Your task to perform on an android device: toggle notifications settings in the gmail app Image 0: 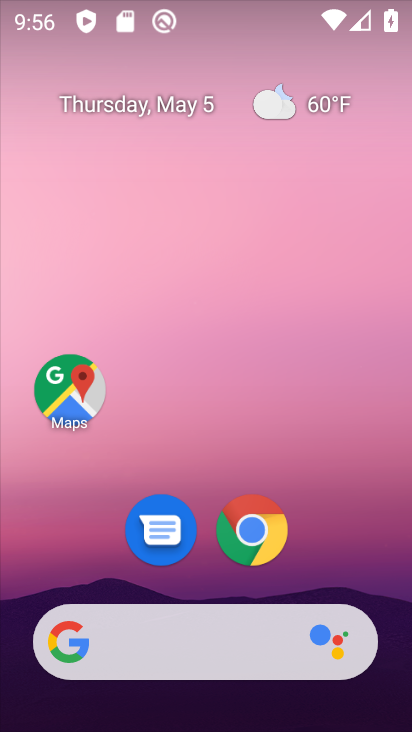
Step 0: drag from (380, 578) to (197, 0)
Your task to perform on an android device: toggle notifications settings in the gmail app Image 1: 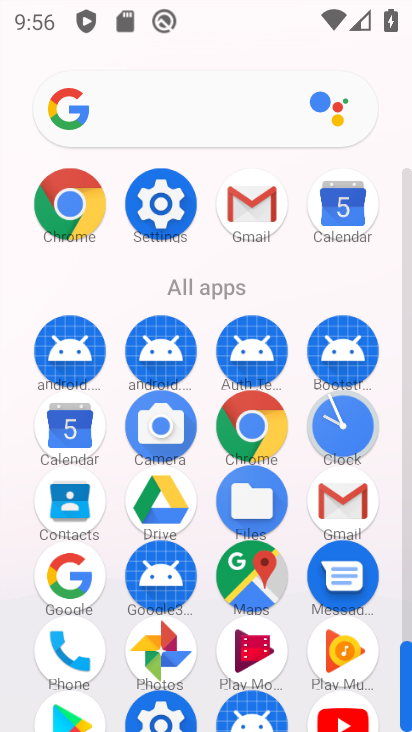
Step 1: click (336, 500)
Your task to perform on an android device: toggle notifications settings in the gmail app Image 2: 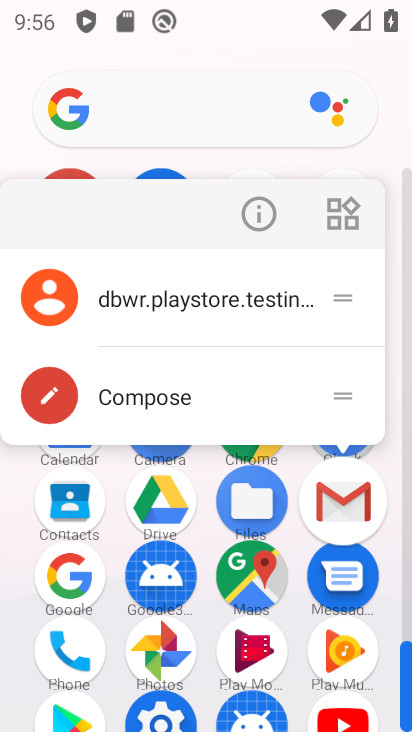
Step 2: click (342, 503)
Your task to perform on an android device: toggle notifications settings in the gmail app Image 3: 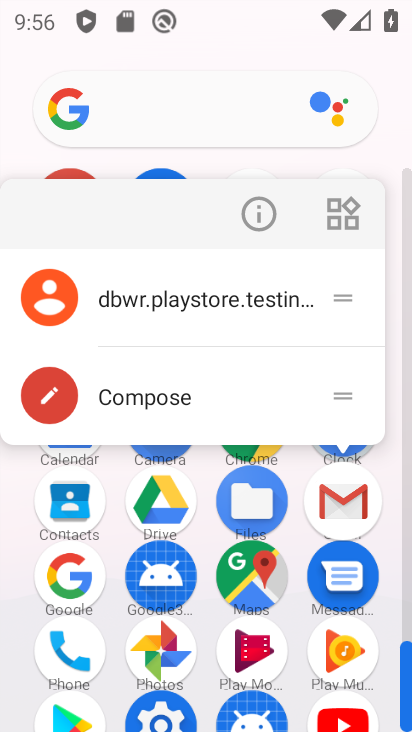
Step 3: click (342, 503)
Your task to perform on an android device: toggle notifications settings in the gmail app Image 4: 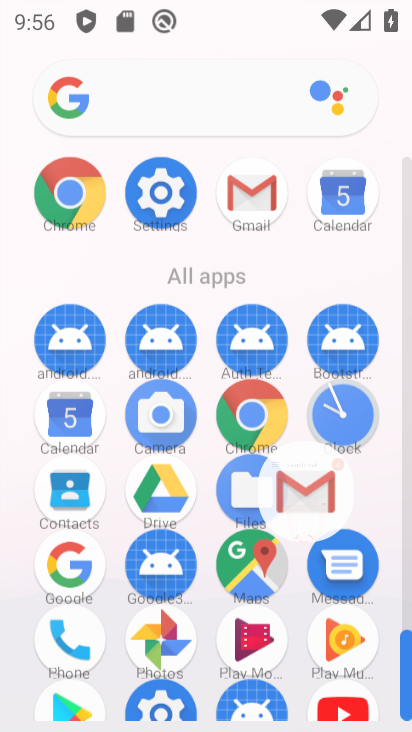
Step 4: click (341, 500)
Your task to perform on an android device: toggle notifications settings in the gmail app Image 5: 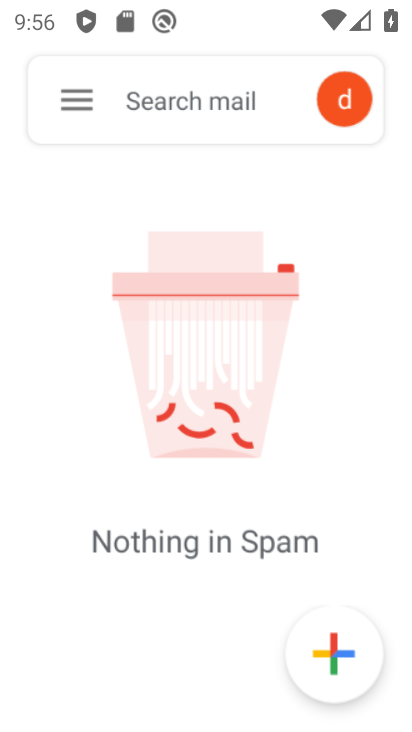
Step 5: click (341, 500)
Your task to perform on an android device: toggle notifications settings in the gmail app Image 6: 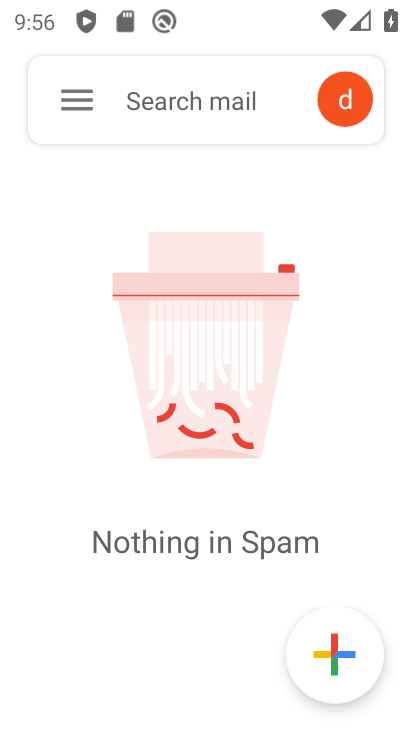
Step 6: click (77, 95)
Your task to perform on an android device: toggle notifications settings in the gmail app Image 7: 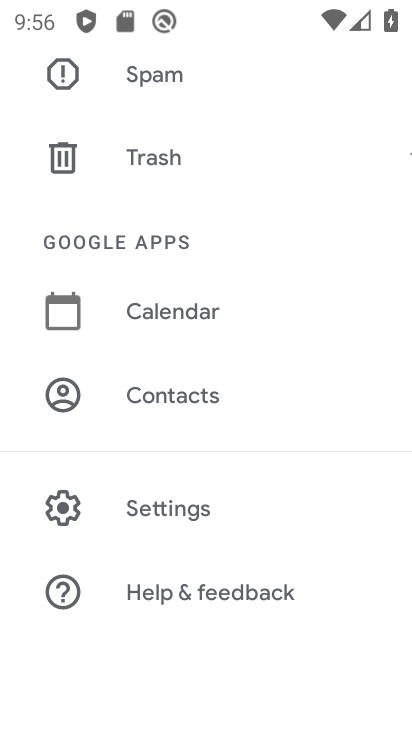
Step 7: click (162, 497)
Your task to perform on an android device: toggle notifications settings in the gmail app Image 8: 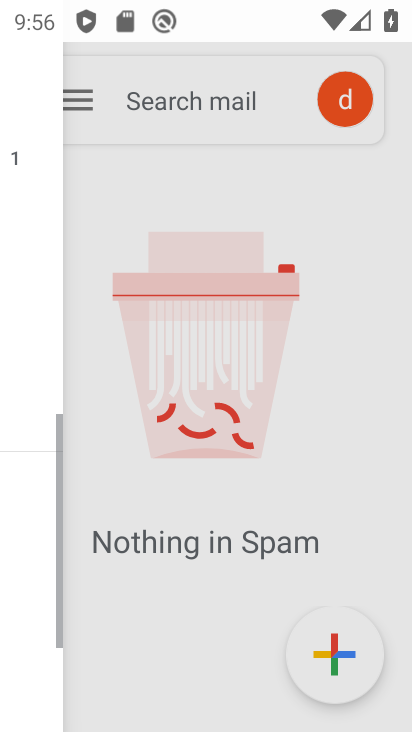
Step 8: click (158, 502)
Your task to perform on an android device: toggle notifications settings in the gmail app Image 9: 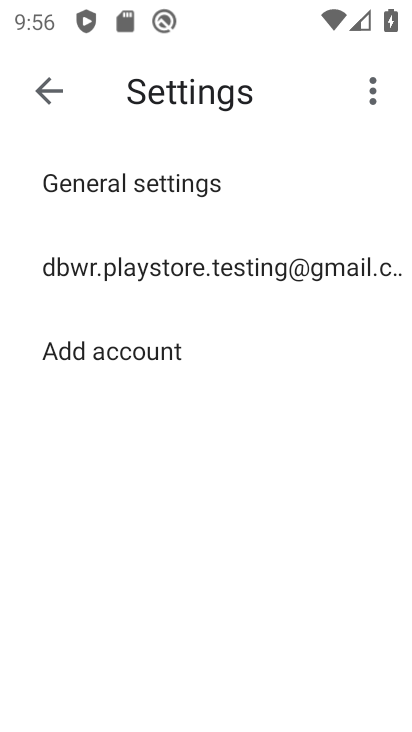
Step 9: click (159, 275)
Your task to perform on an android device: toggle notifications settings in the gmail app Image 10: 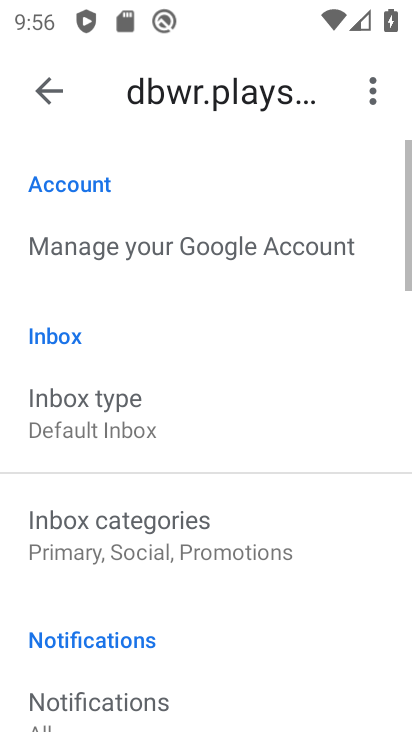
Step 10: click (159, 275)
Your task to perform on an android device: toggle notifications settings in the gmail app Image 11: 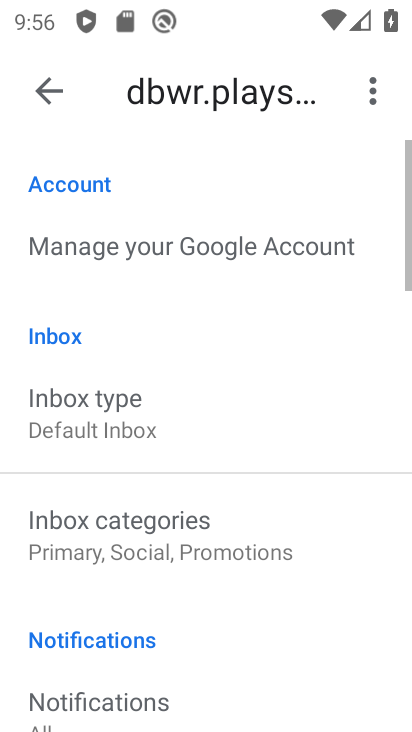
Step 11: click (159, 275)
Your task to perform on an android device: toggle notifications settings in the gmail app Image 12: 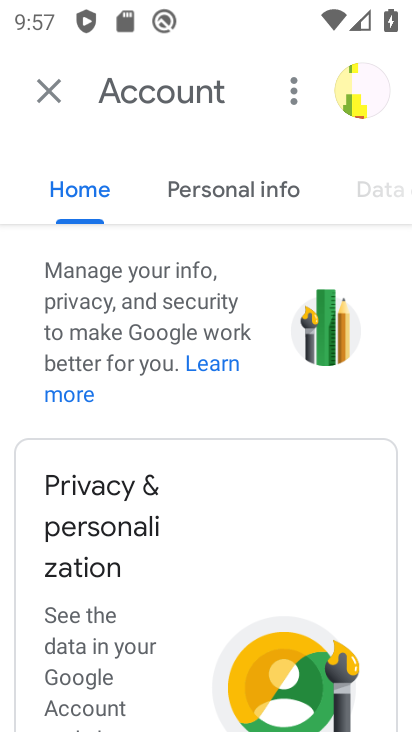
Step 12: click (55, 93)
Your task to perform on an android device: toggle notifications settings in the gmail app Image 13: 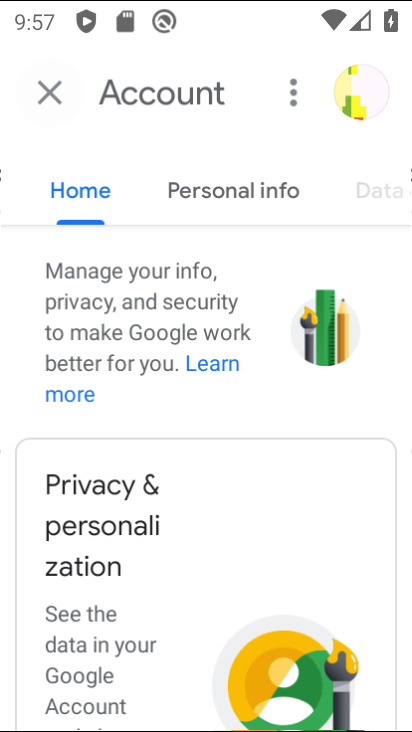
Step 13: click (58, 100)
Your task to perform on an android device: toggle notifications settings in the gmail app Image 14: 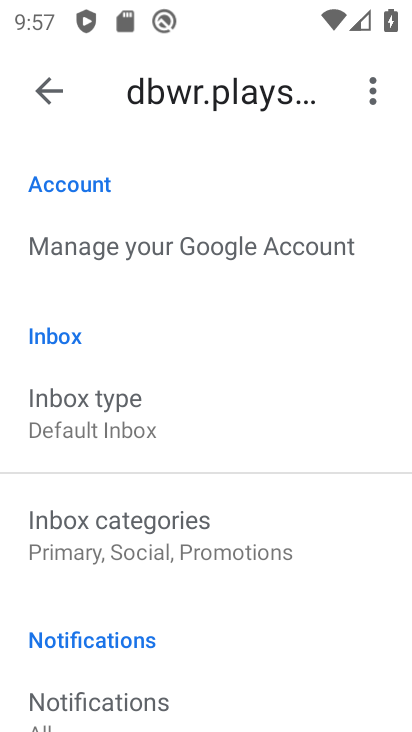
Step 14: drag from (146, 616) to (108, 381)
Your task to perform on an android device: toggle notifications settings in the gmail app Image 15: 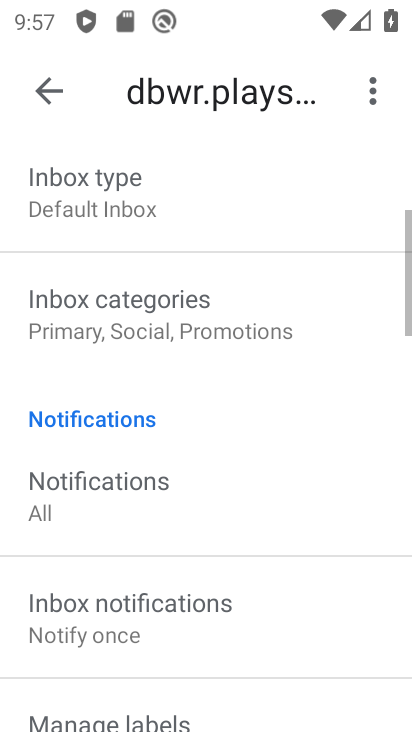
Step 15: drag from (133, 610) to (105, 243)
Your task to perform on an android device: toggle notifications settings in the gmail app Image 16: 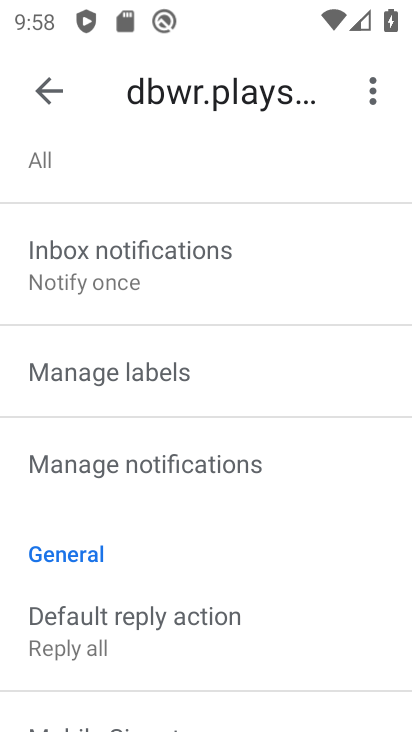
Step 16: drag from (93, 266) to (177, 474)
Your task to perform on an android device: toggle notifications settings in the gmail app Image 17: 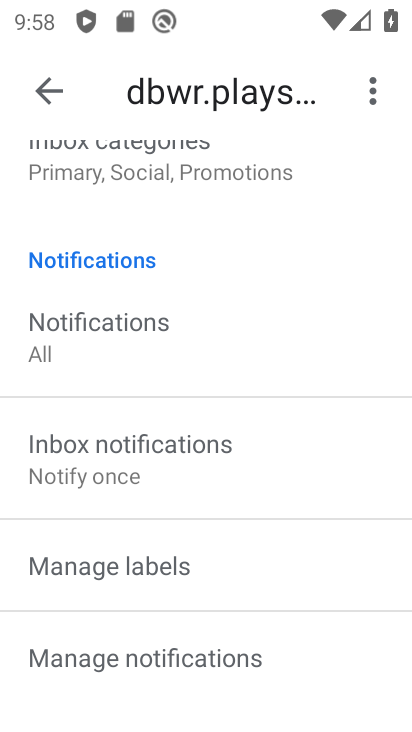
Step 17: click (107, 318)
Your task to perform on an android device: toggle notifications settings in the gmail app Image 18: 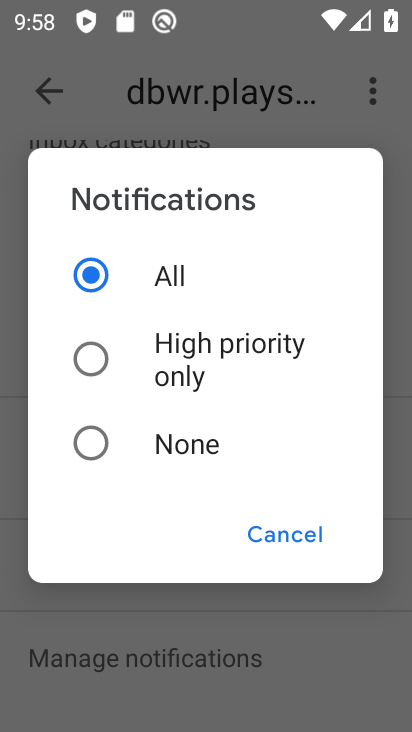
Step 18: click (85, 351)
Your task to perform on an android device: toggle notifications settings in the gmail app Image 19: 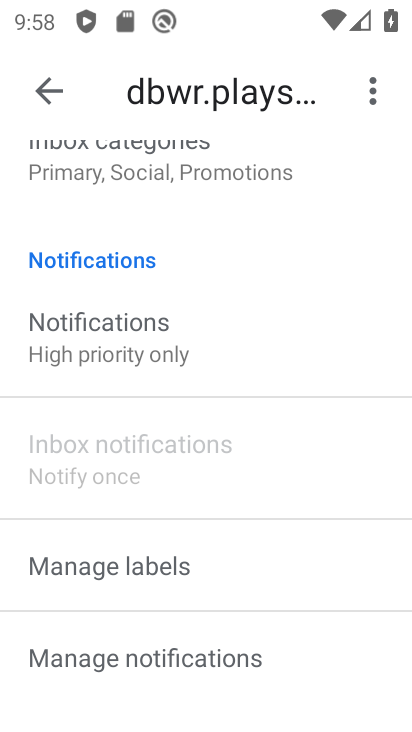
Step 19: task complete